Your task to perform on an android device: Open calendar and show me the first week of next month Image 0: 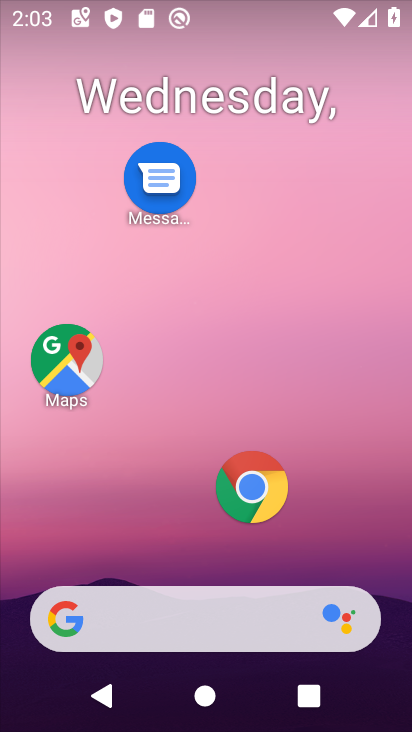
Step 0: drag from (190, 533) to (239, 165)
Your task to perform on an android device: Open calendar and show me the first week of next month Image 1: 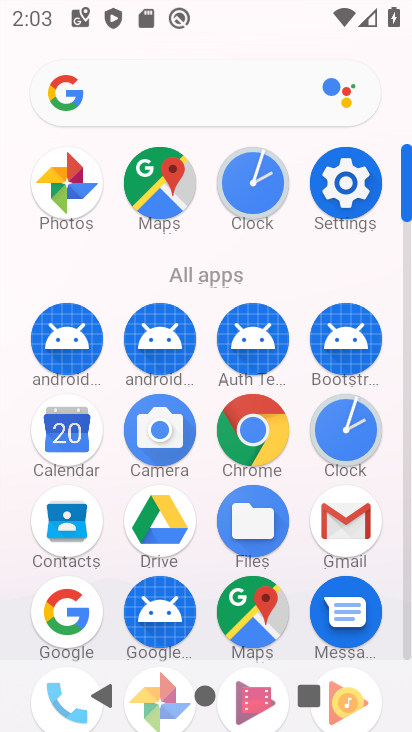
Step 1: click (72, 446)
Your task to perform on an android device: Open calendar and show me the first week of next month Image 2: 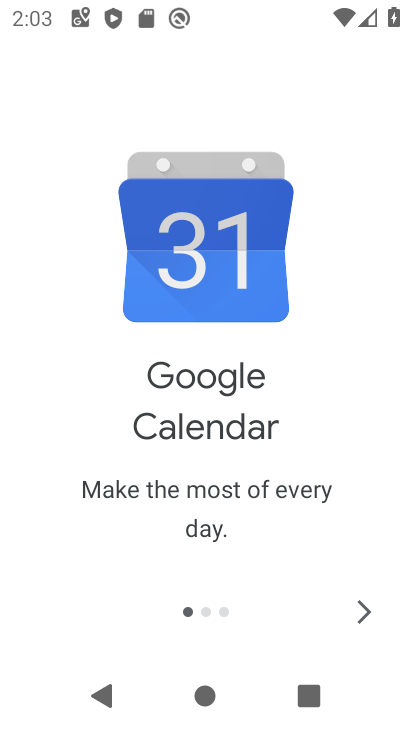
Step 2: click (363, 619)
Your task to perform on an android device: Open calendar and show me the first week of next month Image 3: 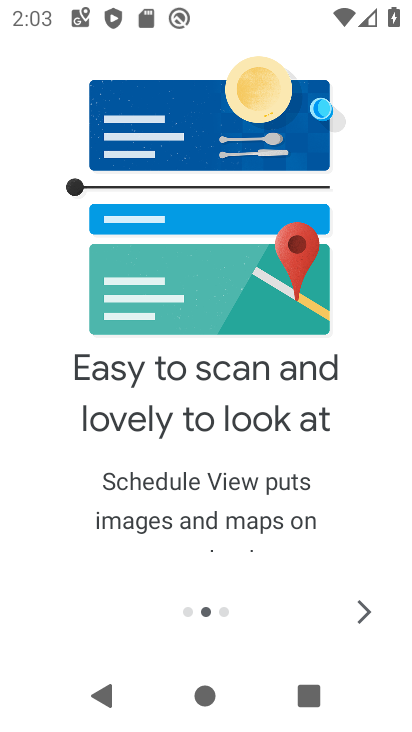
Step 3: click (363, 619)
Your task to perform on an android device: Open calendar and show me the first week of next month Image 4: 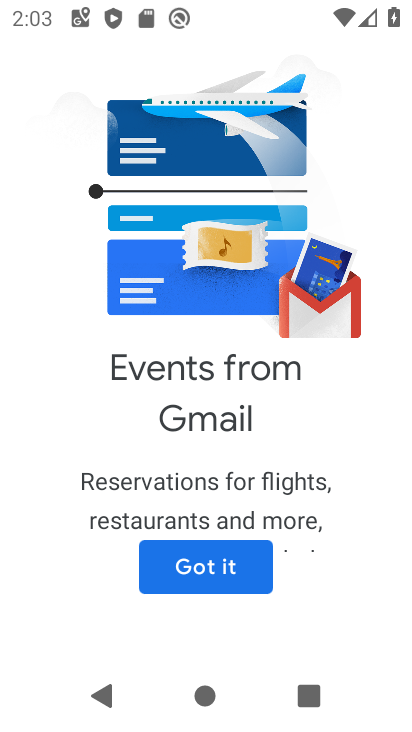
Step 4: click (250, 564)
Your task to perform on an android device: Open calendar and show me the first week of next month Image 5: 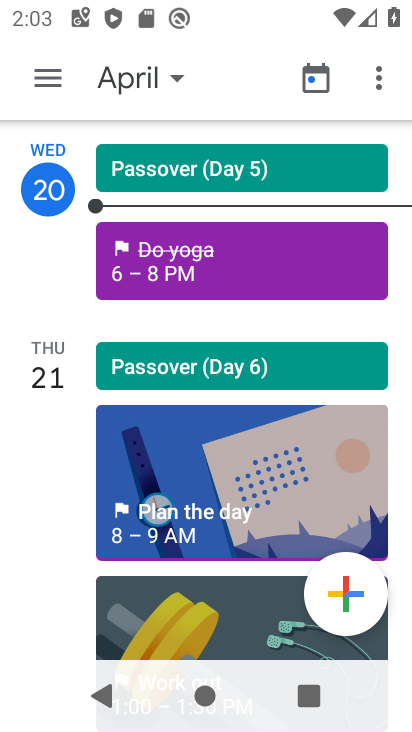
Step 5: click (158, 85)
Your task to perform on an android device: Open calendar and show me the first week of next month Image 6: 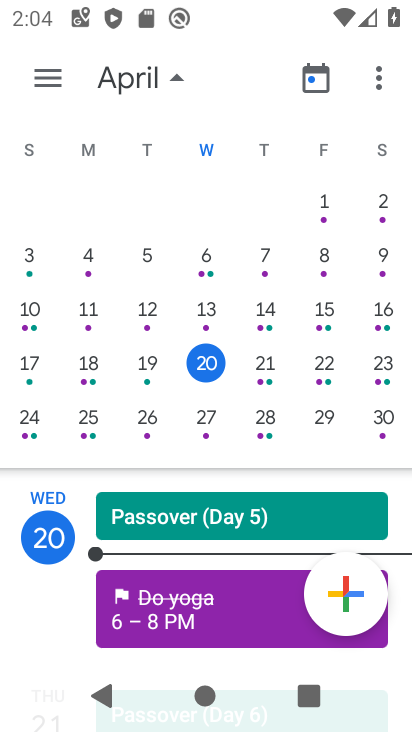
Step 6: drag from (346, 281) to (47, 206)
Your task to perform on an android device: Open calendar and show me the first week of next month Image 7: 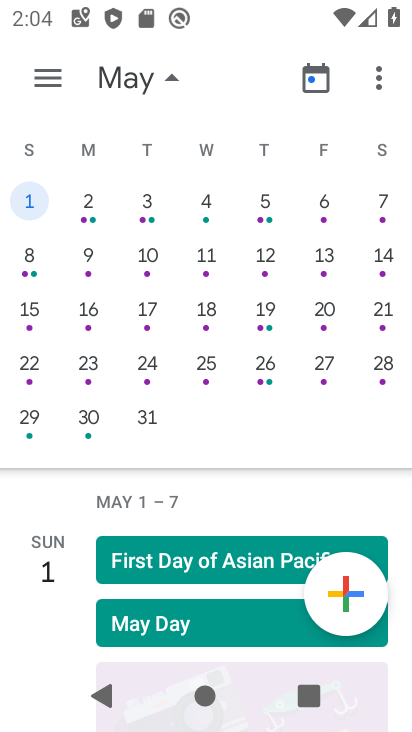
Step 7: click (83, 207)
Your task to perform on an android device: Open calendar and show me the first week of next month Image 8: 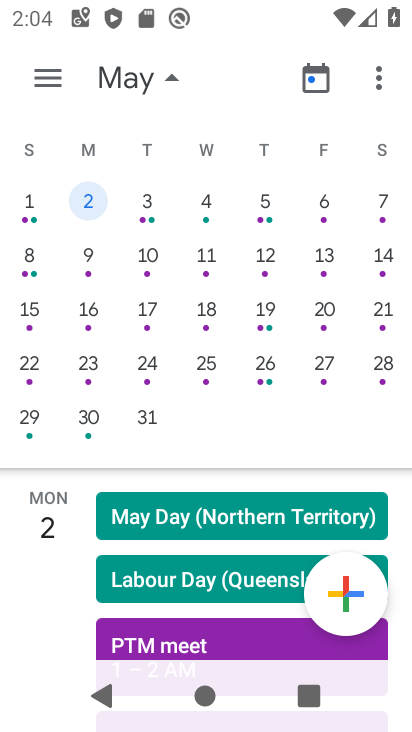
Step 8: task complete